Your task to perform on an android device: turn on airplane mode Image 0: 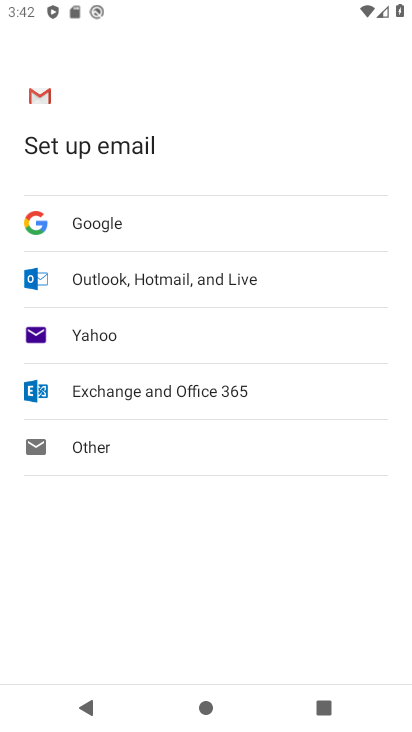
Step 0: drag from (225, 174) to (282, 496)
Your task to perform on an android device: turn on airplane mode Image 1: 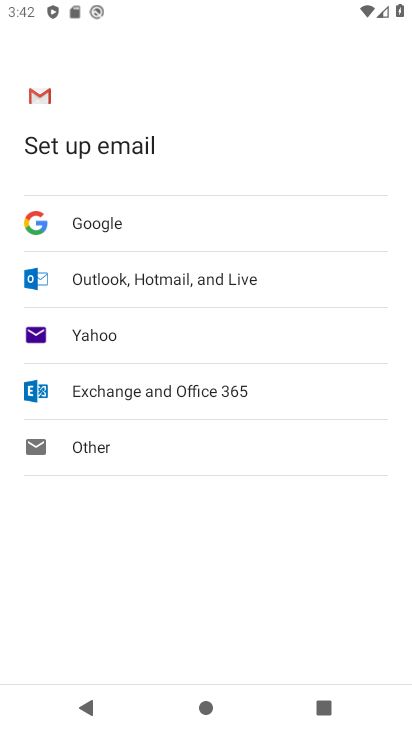
Step 1: drag from (286, 10) to (318, 388)
Your task to perform on an android device: turn on airplane mode Image 2: 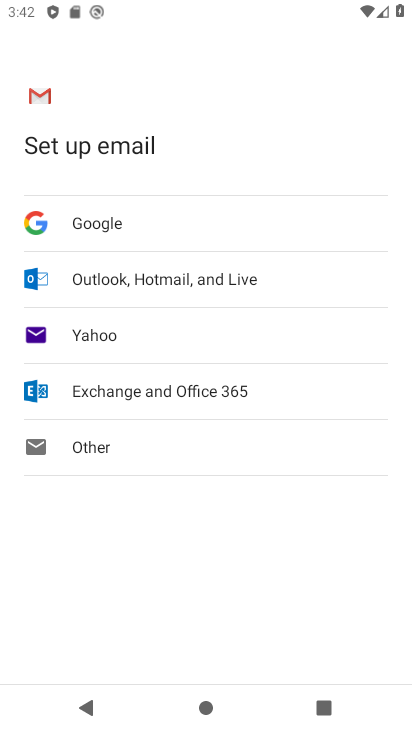
Step 2: drag from (243, 12) to (242, 493)
Your task to perform on an android device: turn on airplane mode Image 3: 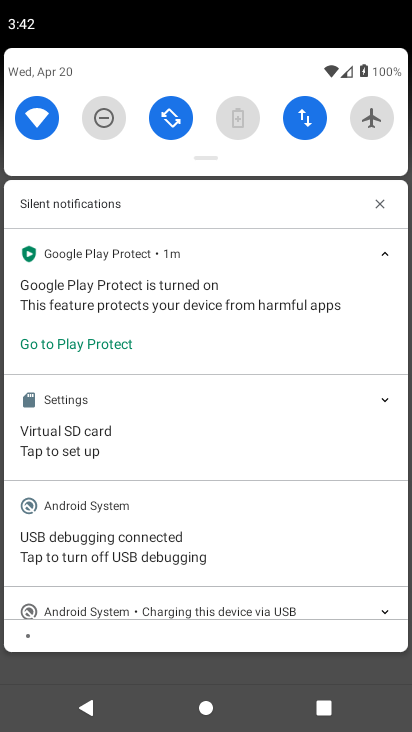
Step 3: click (381, 107)
Your task to perform on an android device: turn on airplane mode Image 4: 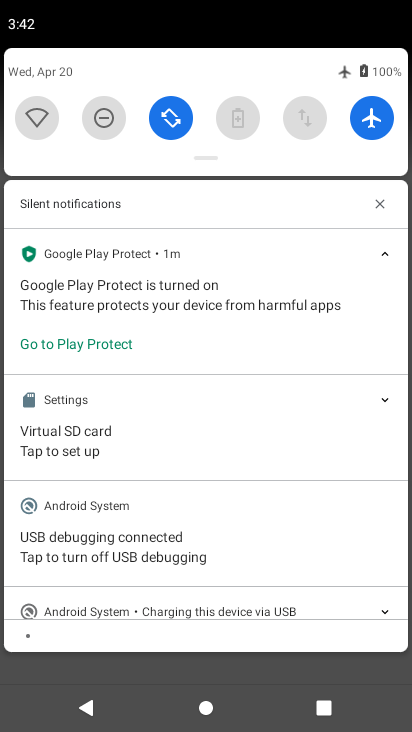
Step 4: task complete